Your task to perform on an android device: toggle translation in the chrome app Image 0: 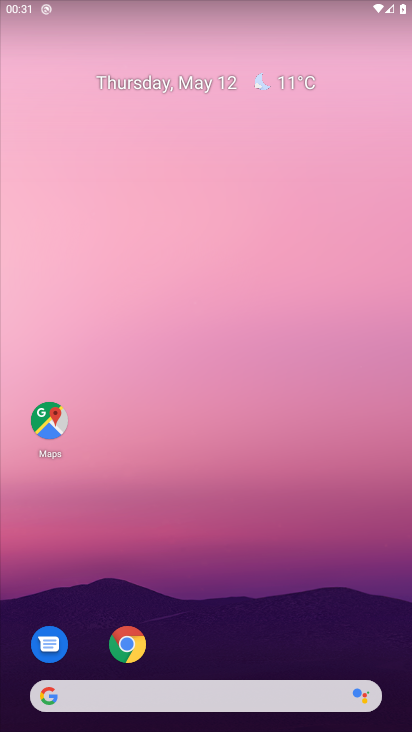
Step 0: drag from (228, 662) to (213, 90)
Your task to perform on an android device: toggle translation in the chrome app Image 1: 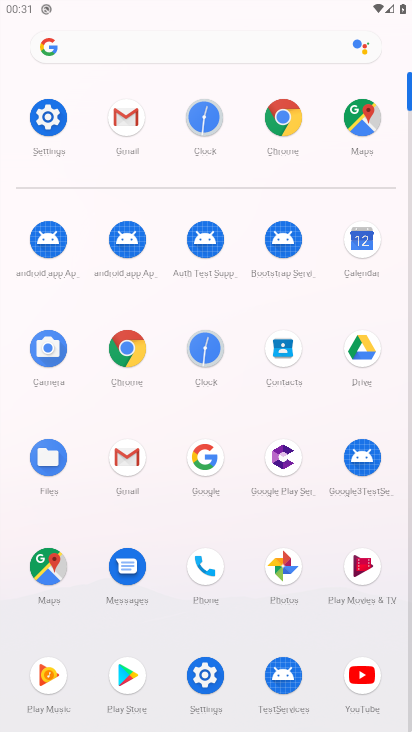
Step 1: click (129, 338)
Your task to perform on an android device: toggle translation in the chrome app Image 2: 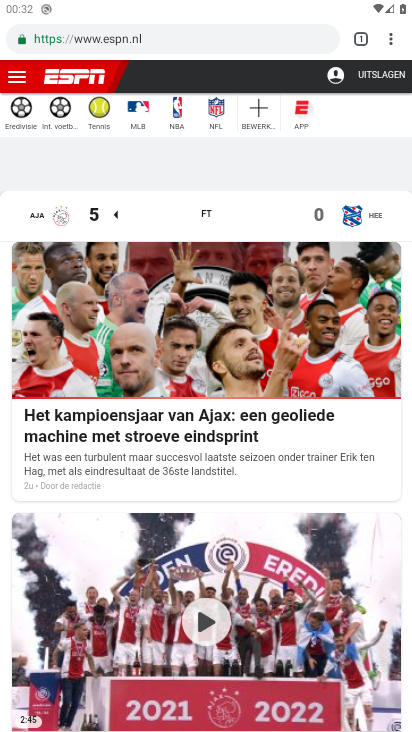
Step 2: click (392, 33)
Your task to perform on an android device: toggle translation in the chrome app Image 3: 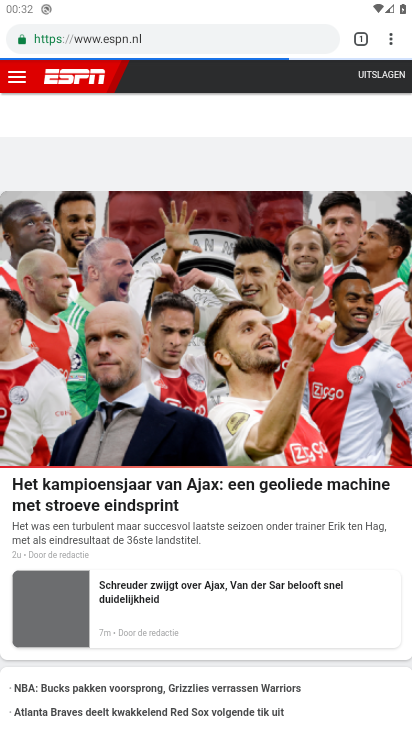
Step 3: click (390, 37)
Your task to perform on an android device: toggle translation in the chrome app Image 4: 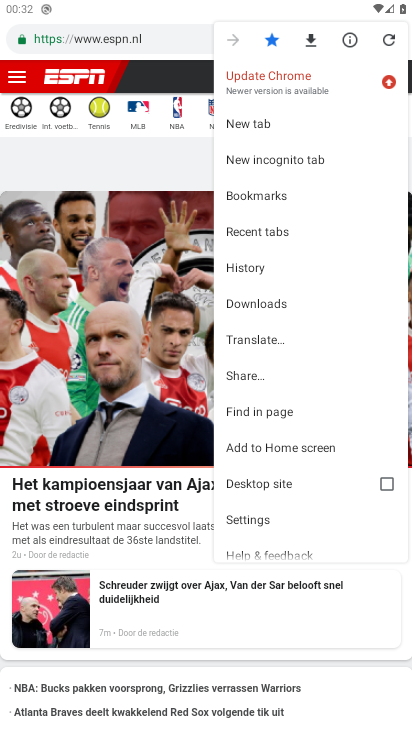
Step 4: click (276, 518)
Your task to perform on an android device: toggle translation in the chrome app Image 5: 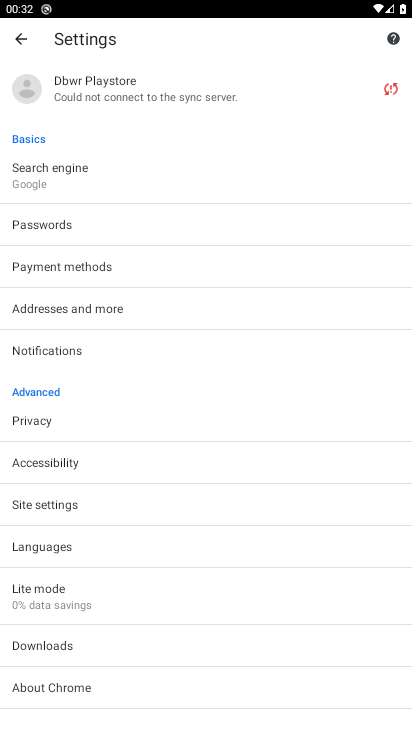
Step 5: click (84, 543)
Your task to perform on an android device: toggle translation in the chrome app Image 6: 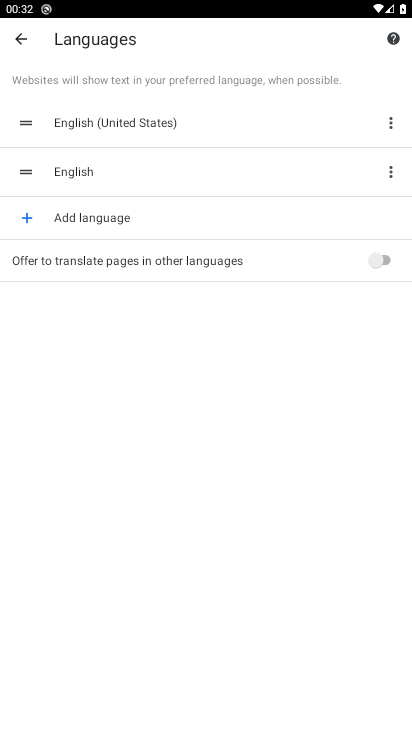
Step 6: click (383, 260)
Your task to perform on an android device: toggle translation in the chrome app Image 7: 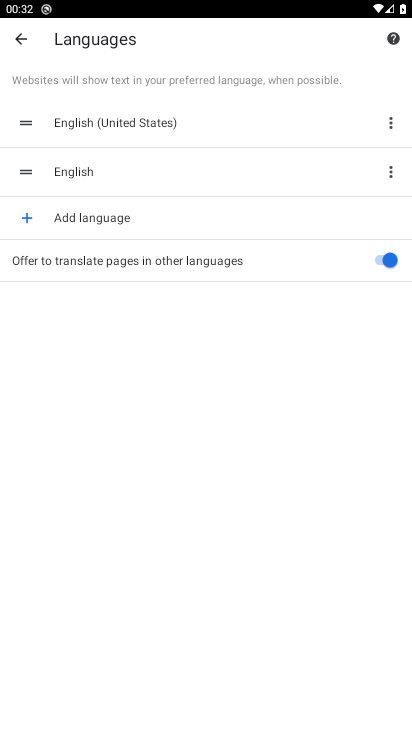
Step 7: task complete